Your task to perform on an android device: Add alienware aurora to the cart on walmart, then select checkout. Image 0: 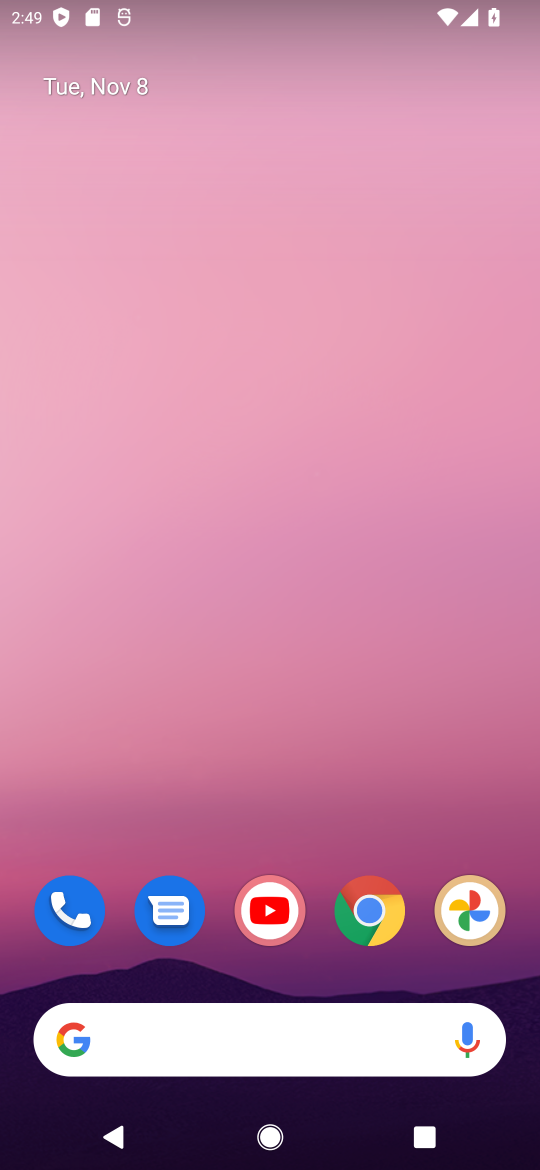
Step 0: drag from (331, 980) to (305, 235)
Your task to perform on an android device: Add alienware aurora to the cart on walmart, then select checkout. Image 1: 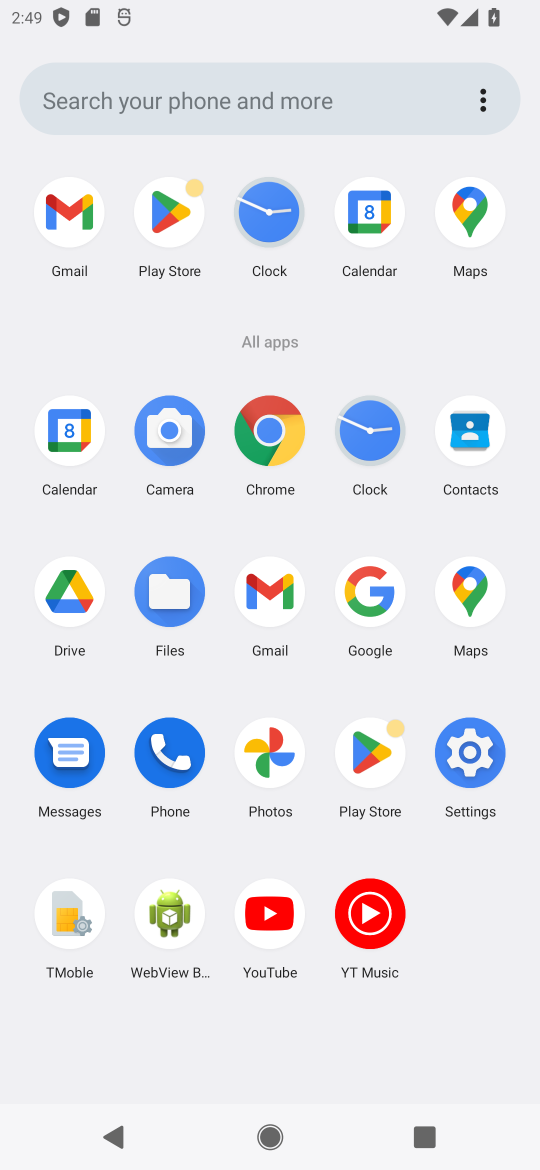
Step 1: click (266, 434)
Your task to perform on an android device: Add alienware aurora to the cart on walmart, then select checkout. Image 2: 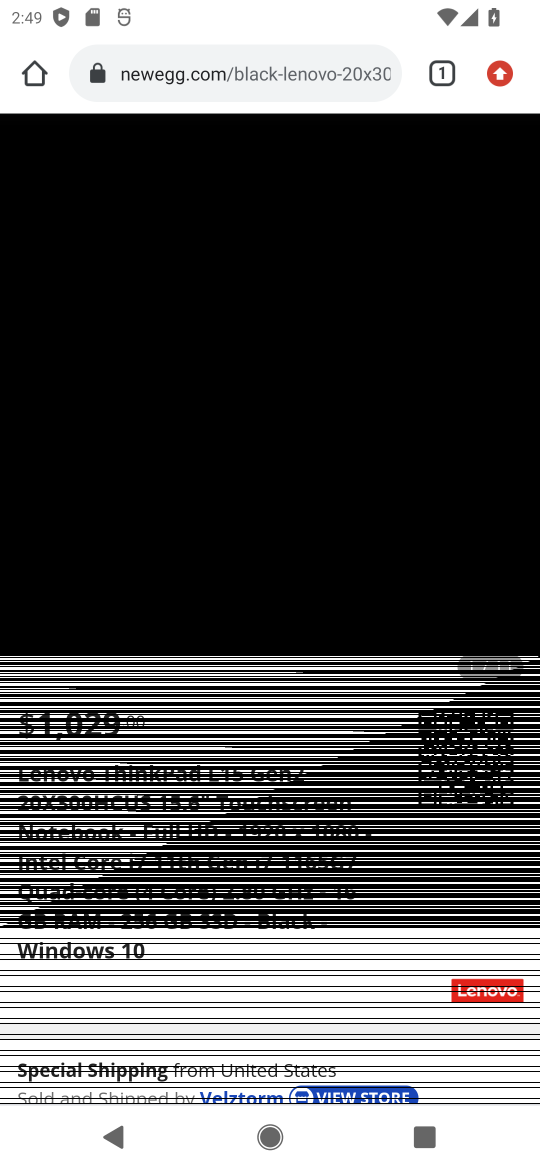
Step 2: click (330, 72)
Your task to perform on an android device: Add alienware aurora to the cart on walmart, then select checkout. Image 3: 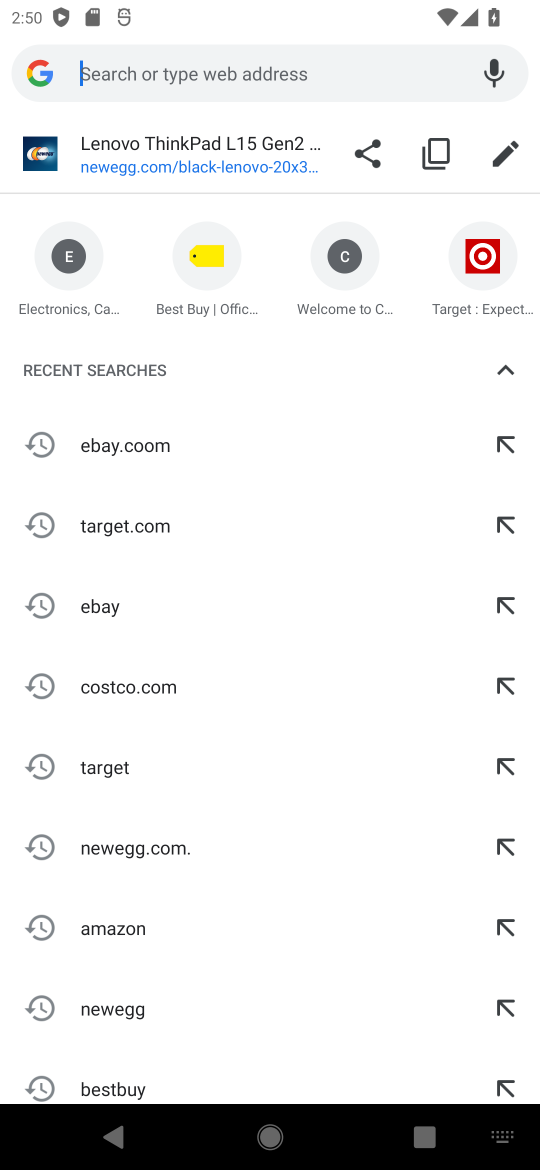
Step 3: type "walmart.com"
Your task to perform on an android device: Add alienware aurora to the cart on walmart, then select checkout. Image 4: 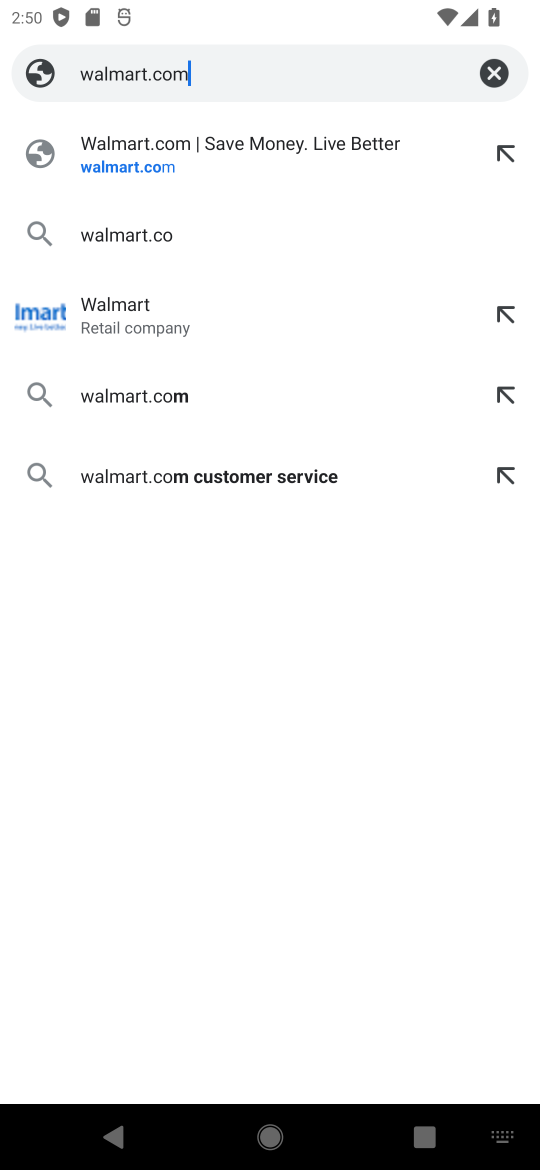
Step 4: press enter
Your task to perform on an android device: Add alienware aurora to the cart on walmart, then select checkout. Image 5: 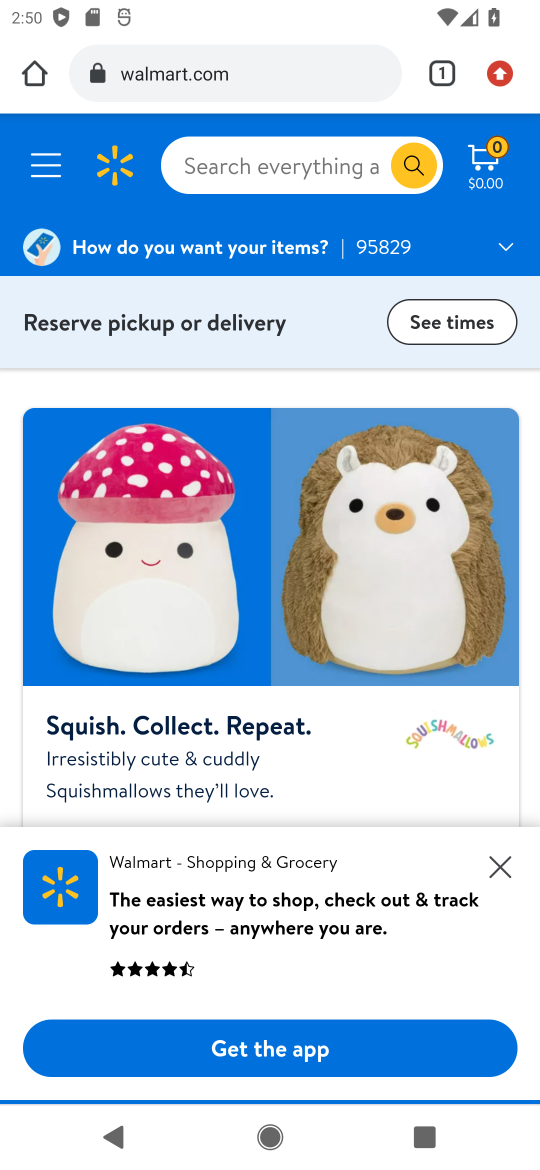
Step 5: click (277, 168)
Your task to perform on an android device: Add alienware aurora to the cart on walmart, then select checkout. Image 6: 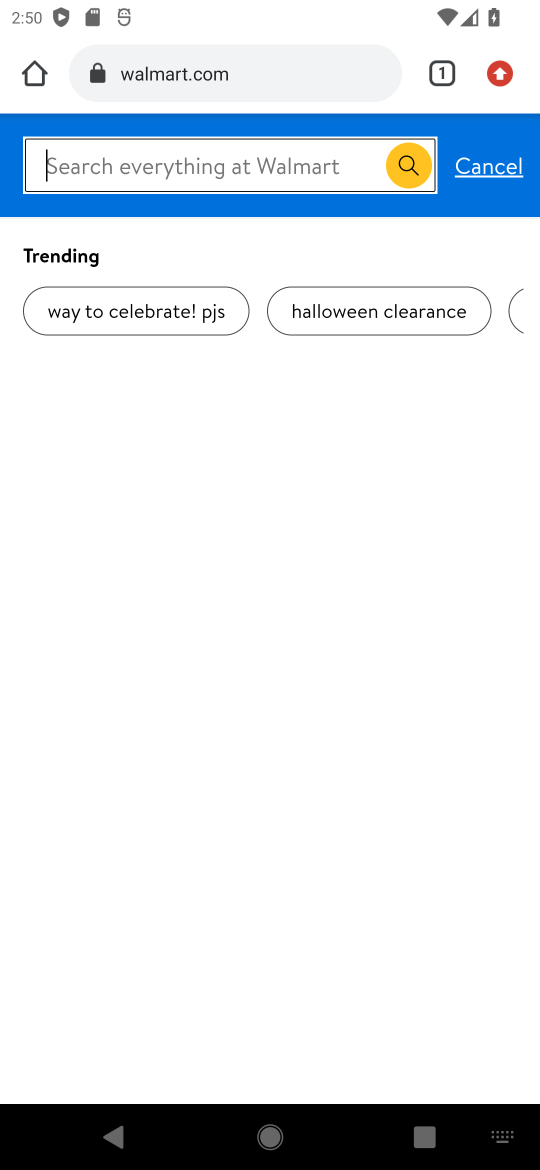
Step 6: type "alienware aurora"
Your task to perform on an android device: Add alienware aurora to the cart on walmart, then select checkout. Image 7: 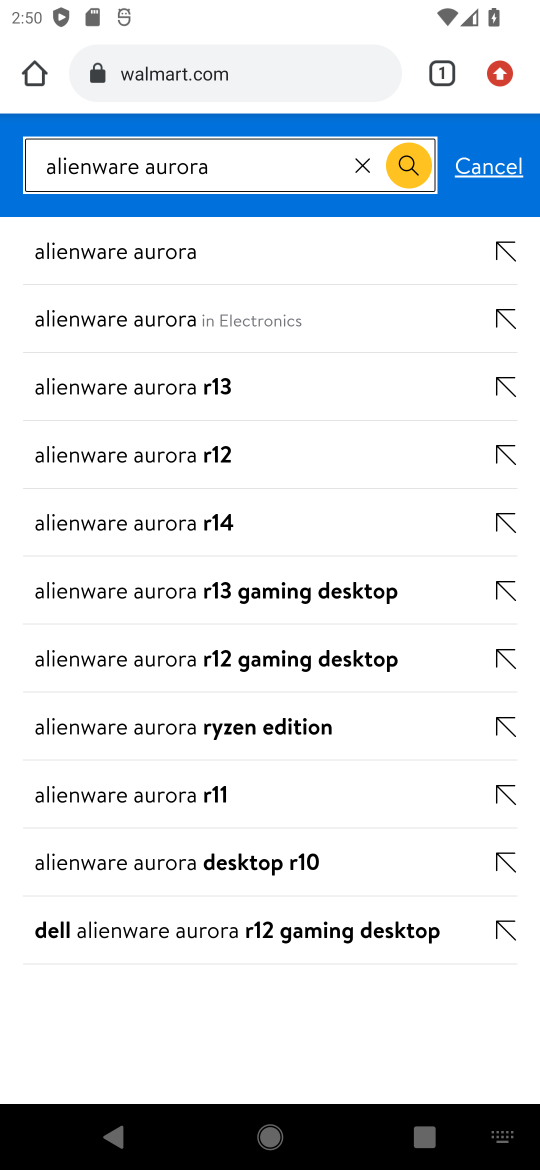
Step 7: press enter
Your task to perform on an android device: Add alienware aurora to the cart on walmart, then select checkout. Image 8: 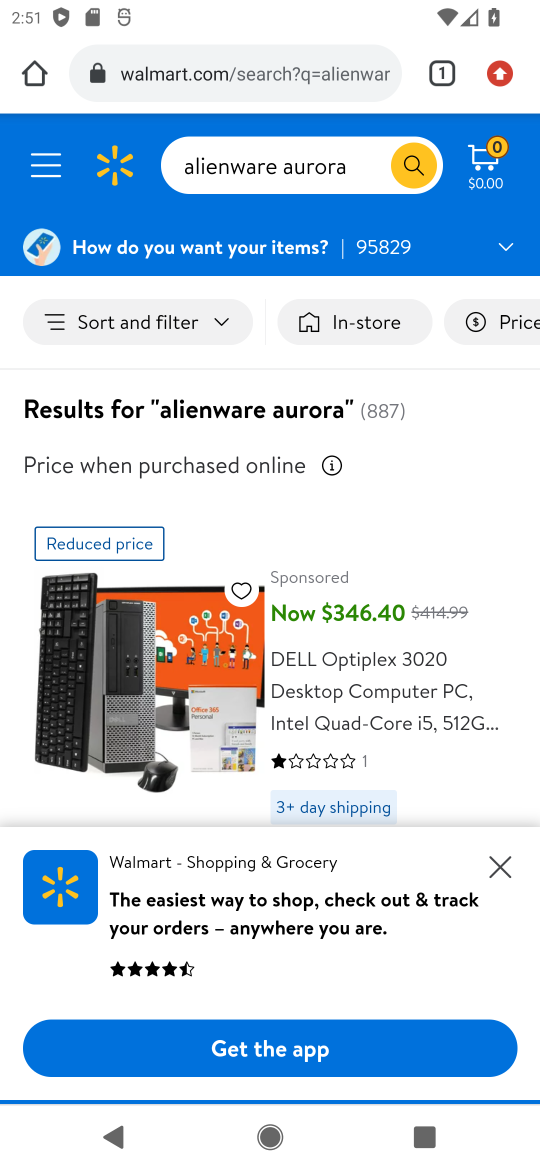
Step 8: drag from (451, 739) to (437, 208)
Your task to perform on an android device: Add alienware aurora to the cart on walmart, then select checkout. Image 9: 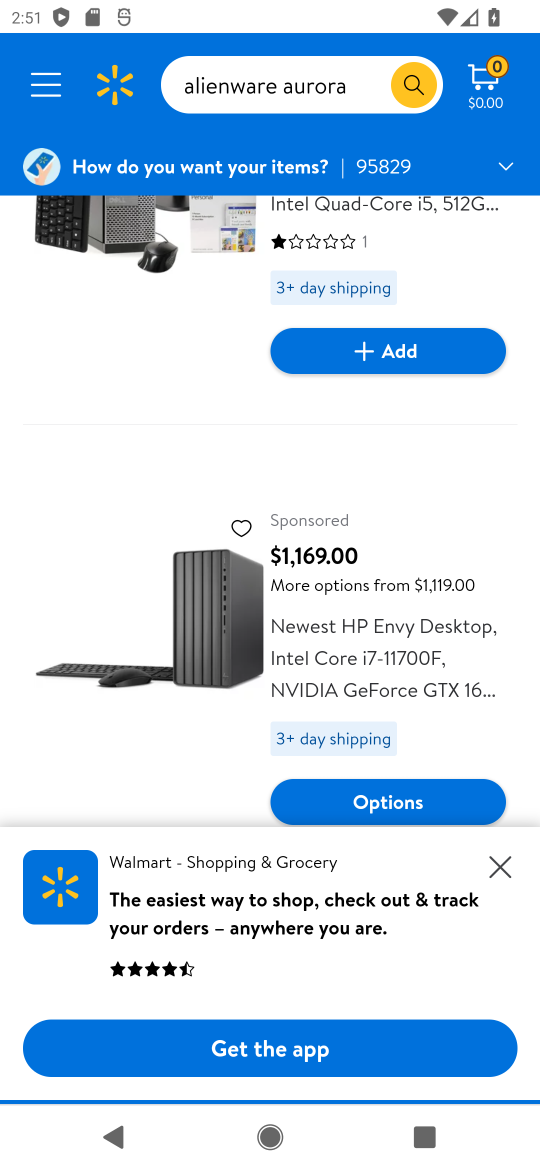
Step 9: drag from (339, 741) to (388, 326)
Your task to perform on an android device: Add alienware aurora to the cart on walmart, then select checkout. Image 10: 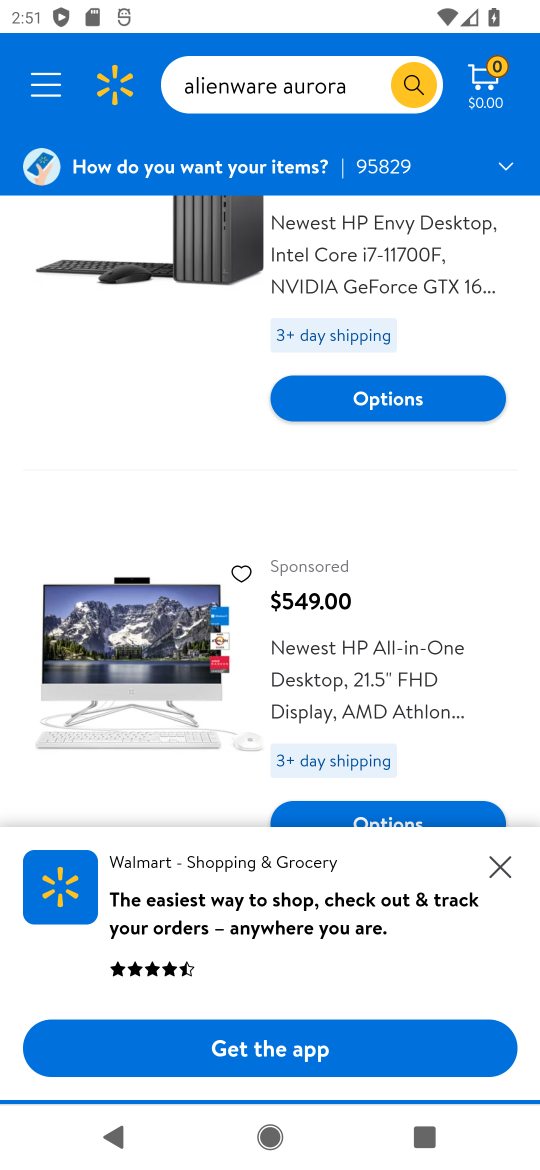
Step 10: drag from (321, 659) to (359, 266)
Your task to perform on an android device: Add alienware aurora to the cart on walmart, then select checkout. Image 11: 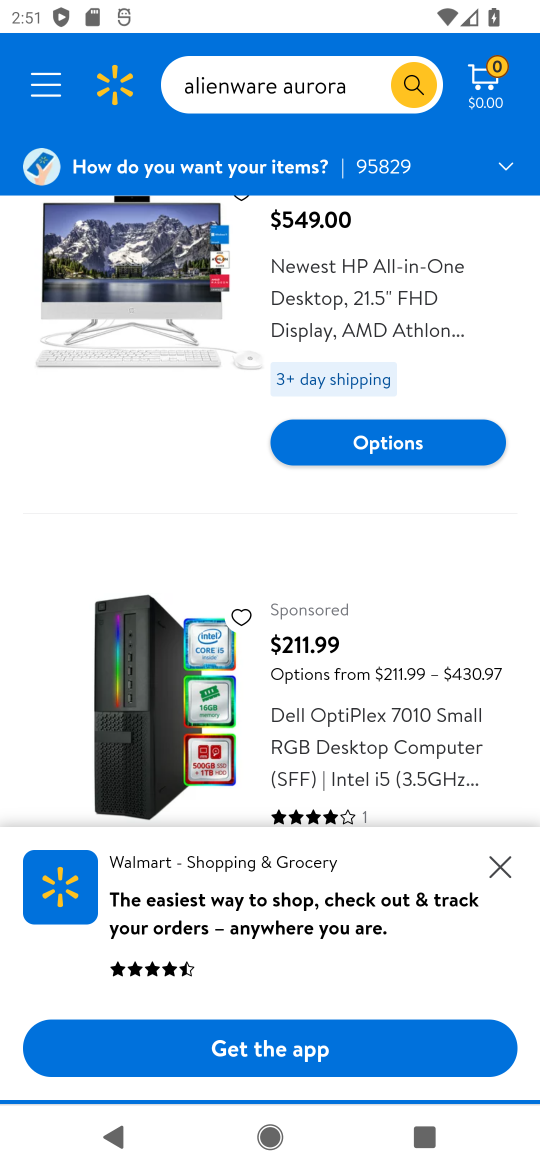
Step 11: drag from (381, 775) to (348, 241)
Your task to perform on an android device: Add alienware aurora to the cart on walmart, then select checkout. Image 12: 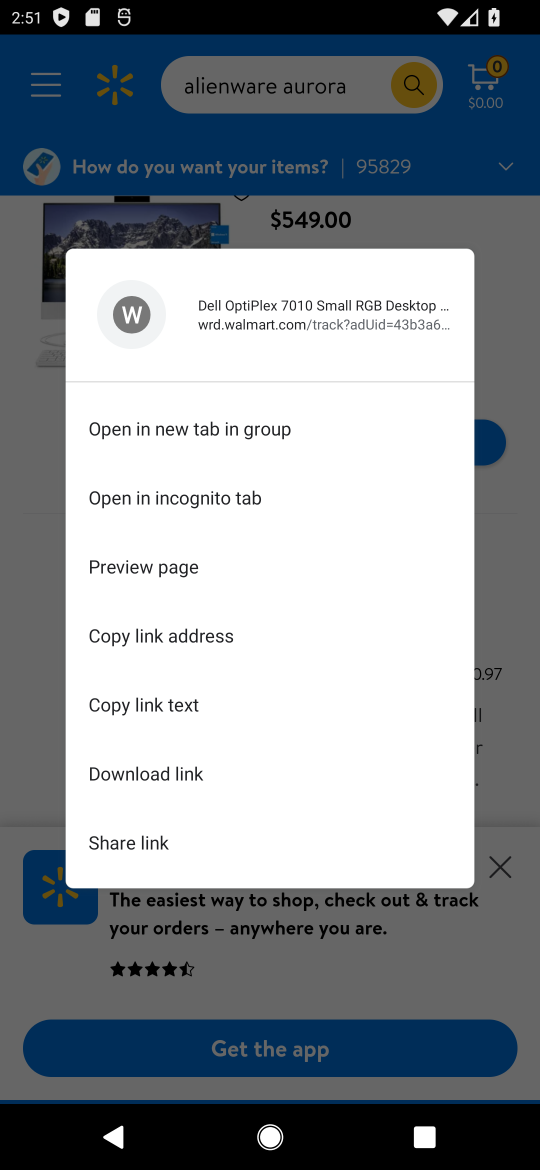
Step 12: click (492, 710)
Your task to perform on an android device: Add alienware aurora to the cart on walmart, then select checkout. Image 13: 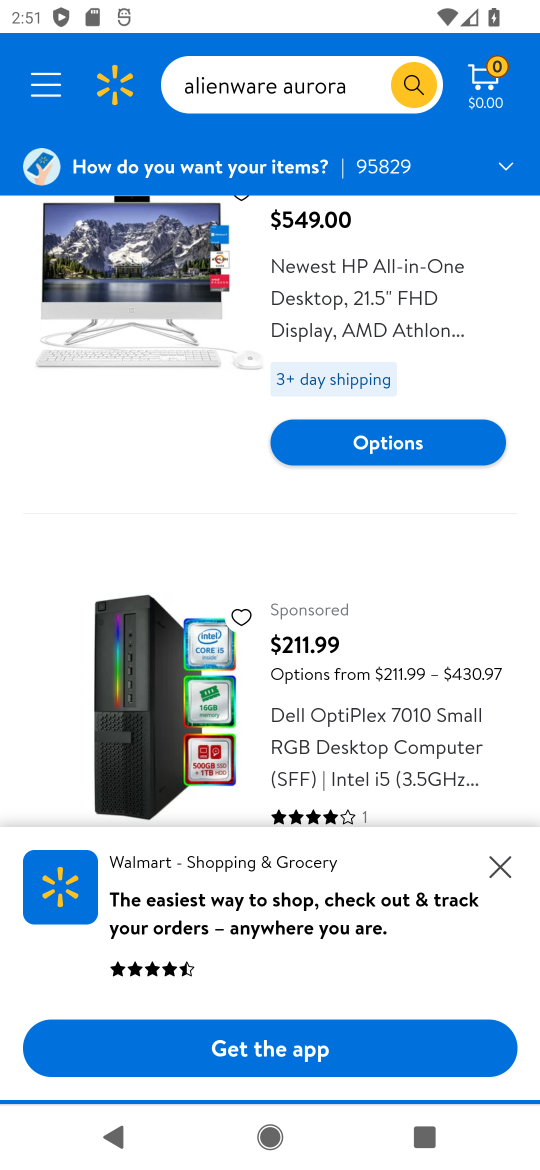
Step 13: drag from (387, 840) to (383, 312)
Your task to perform on an android device: Add alienware aurora to the cart on walmart, then select checkout. Image 14: 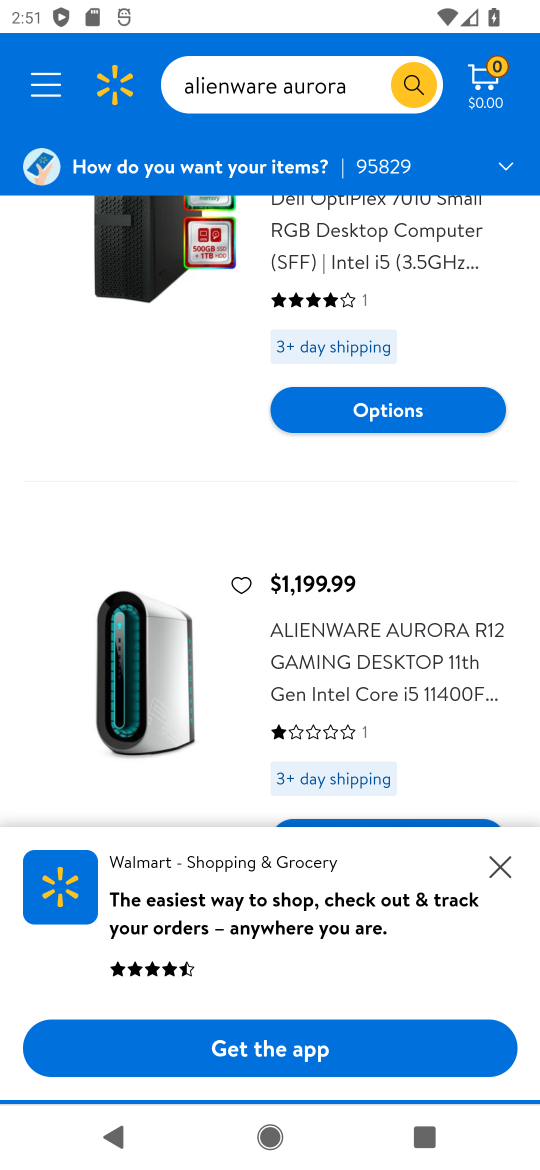
Step 14: drag from (394, 775) to (438, 524)
Your task to perform on an android device: Add alienware aurora to the cart on walmart, then select checkout. Image 15: 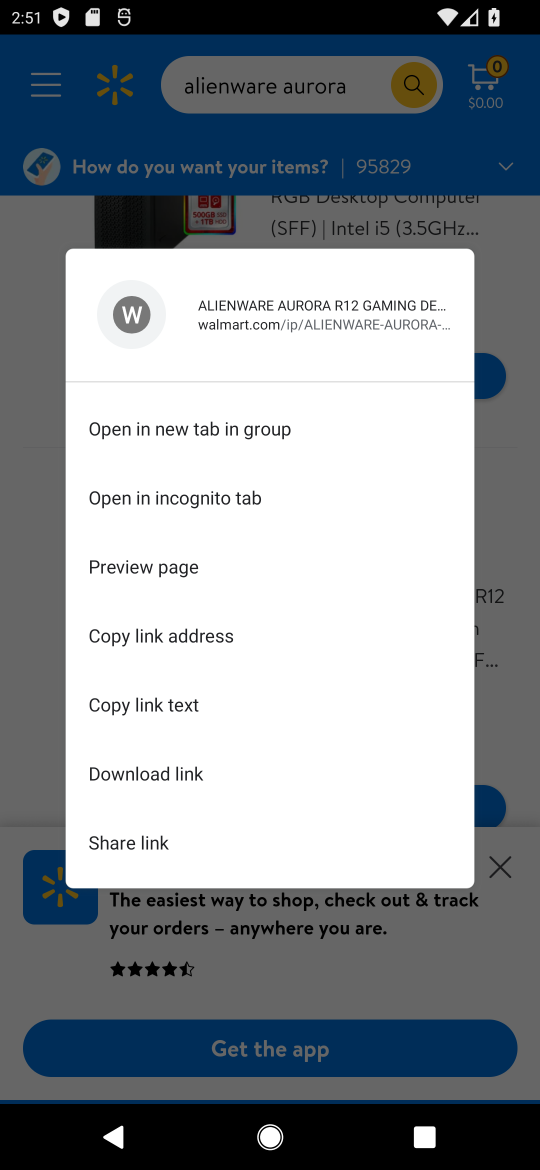
Step 15: click (507, 609)
Your task to perform on an android device: Add alienware aurora to the cart on walmart, then select checkout. Image 16: 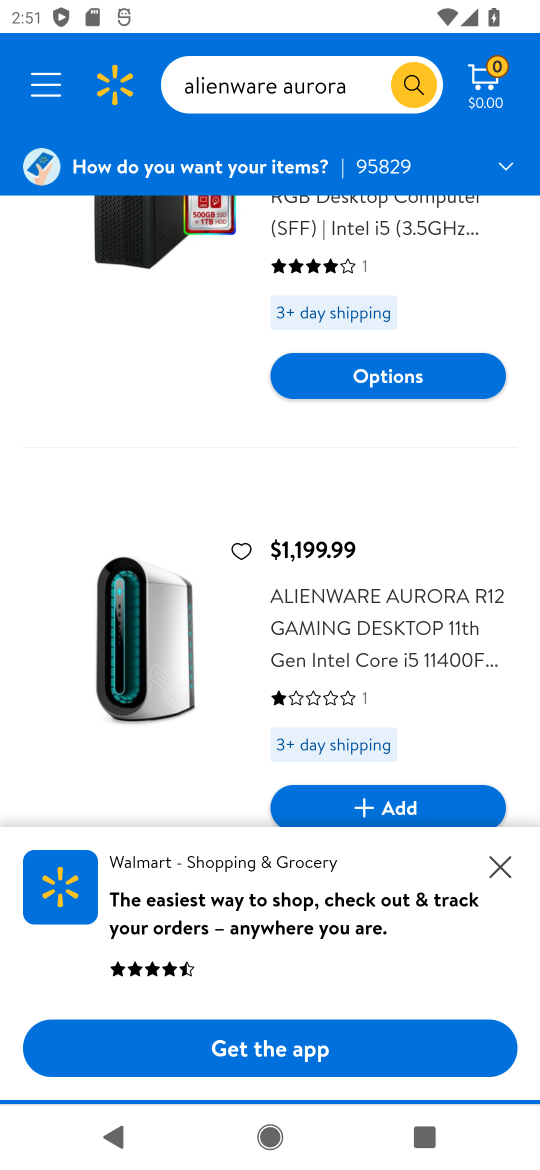
Step 16: click (356, 814)
Your task to perform on an android device: Add alienware aurora to the cart on walmart, then select checkout. Image 17: 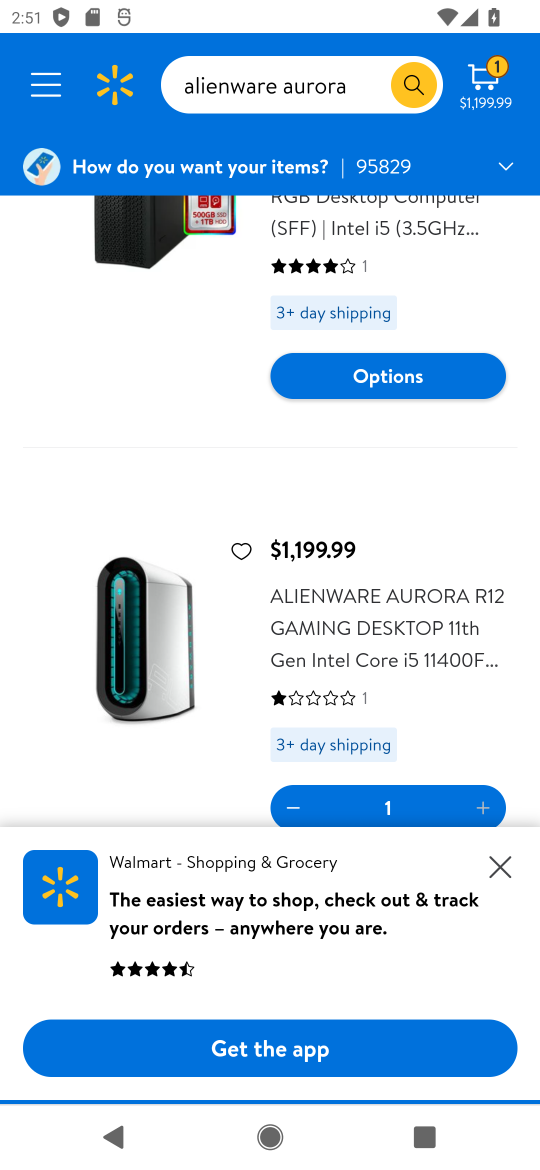
Step 17: click (489, 73)
Your task to perform on an android device: Add alienware aurora to the cart on walmart, then select checkout. Image 18: 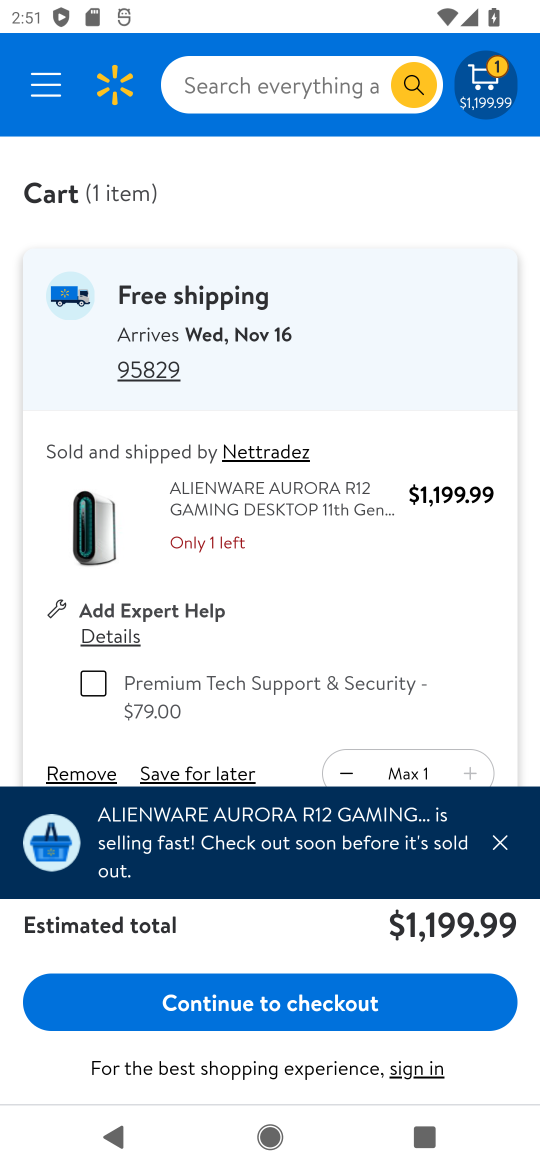
Step 18: click (394, 1012)
Your task to perform on an android device: Add alienware aurora to the cart on walmart, then select checkout. Image 19: 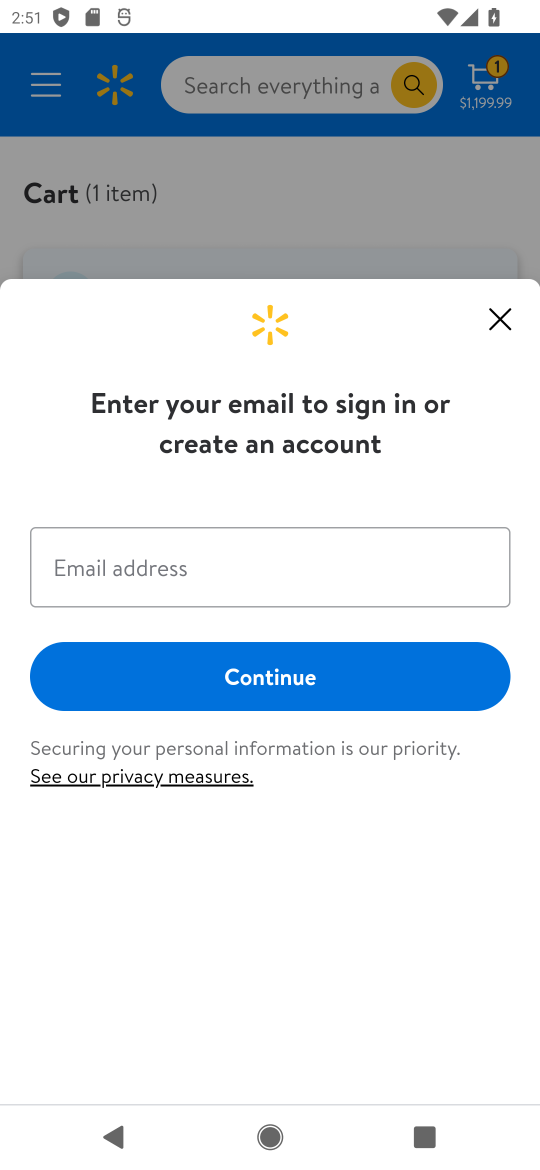
Step 19: task complete